Your task to perform on an android device: Go to accessibility settings Image 0: 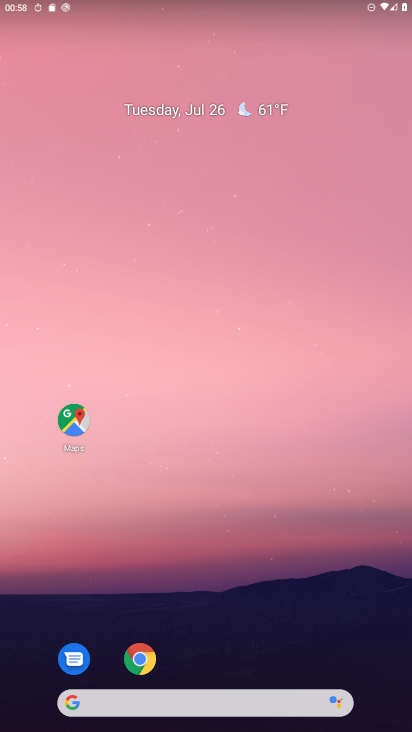
Step 0: drag from (29, 669) to (337, 8)
Your task to perform on an android device: Go to accessibility settings Image 1: 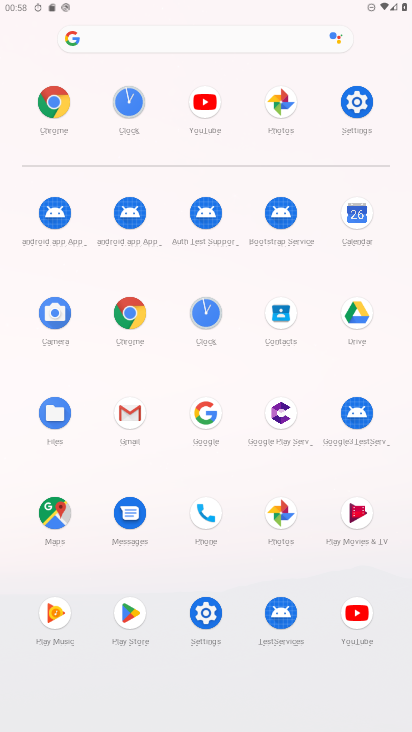
Step 1: click (207, 621)
Your task to perform on an android device: Go to accessibility settings Image 2: 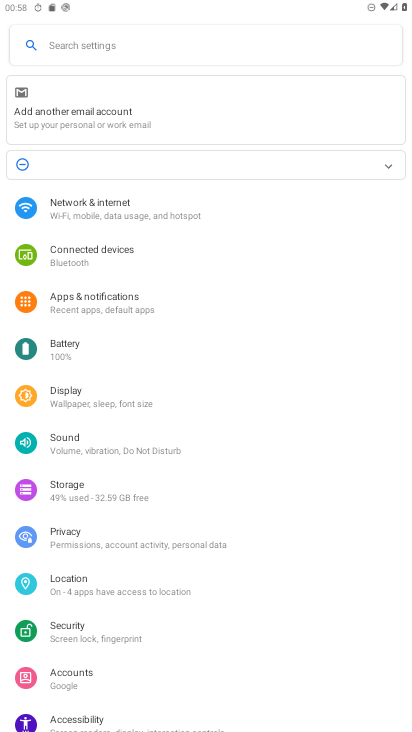
Step 2: drag from (221, 681) to (357, 224)
Your task to perform on an android device: Go to accessibility settings Image 3: 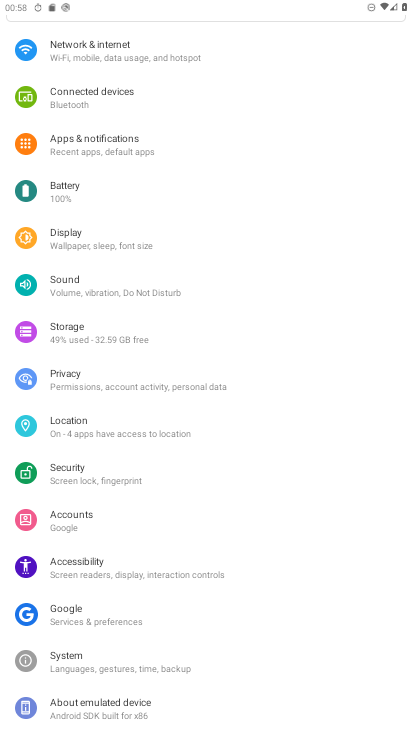
Step 3: click (83, 570)
Your task to perform on an android device: Go to accessibility settings Image 4: 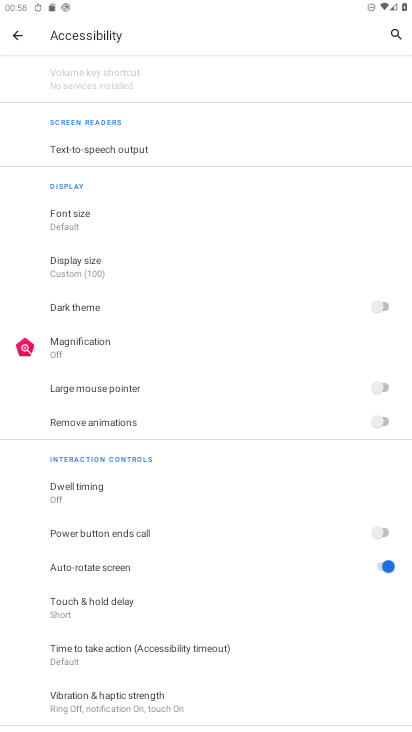
Step 4: task complete